Your task to perform on an android device: delete the emails in spam in the gmail app Image 0: 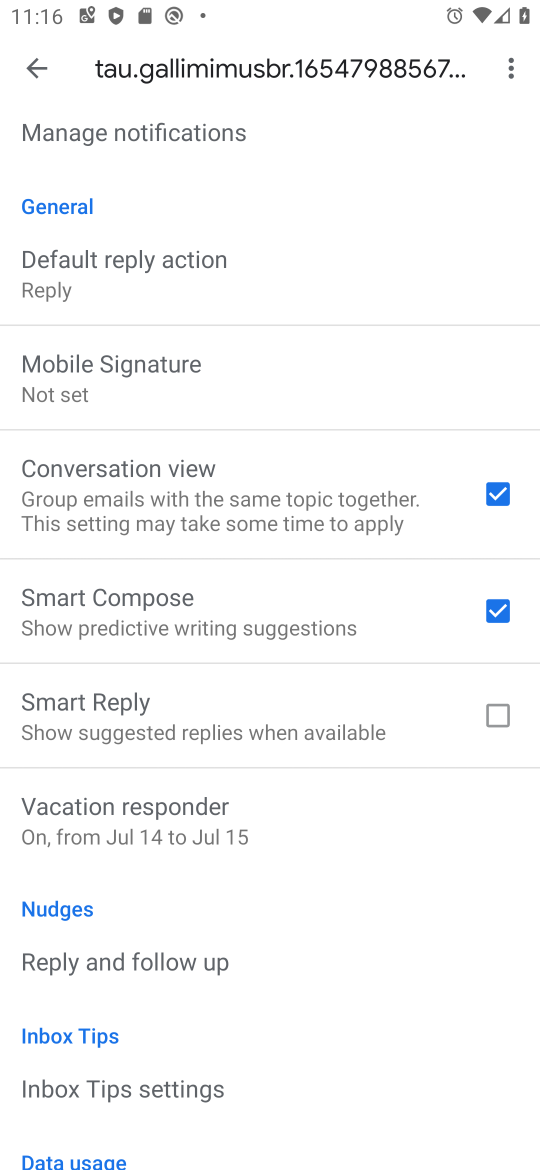
Step 0: press home button
Your task to perform on an android device: delete the emails in spam in the gmail app Image 1: 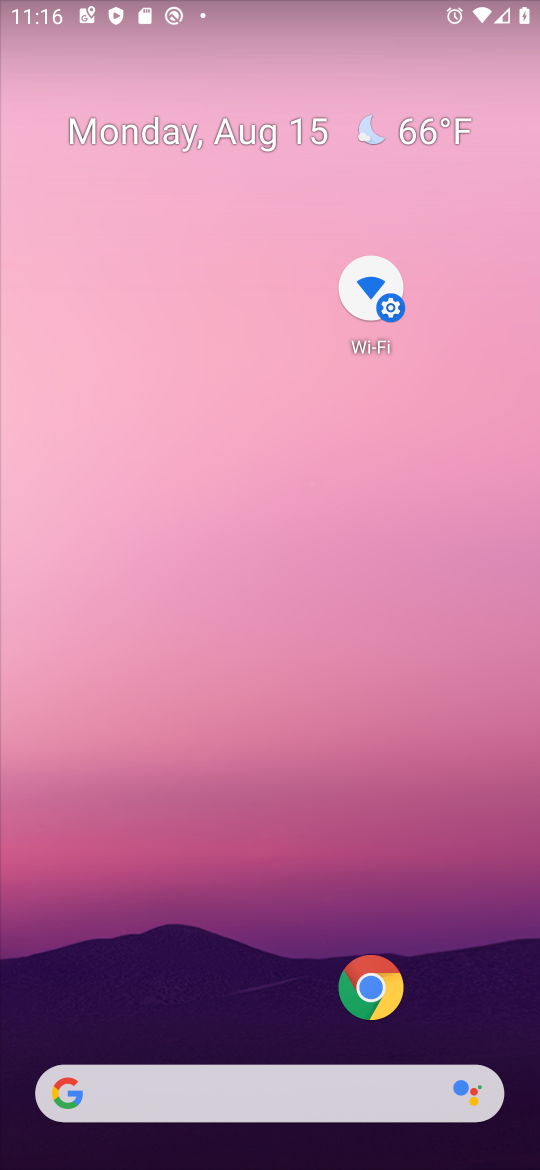
Step 1: drag from (235, 1052) to (244, 46)
Your task to perform on an android device: delete the emails in spam in the gmail app Image 2: 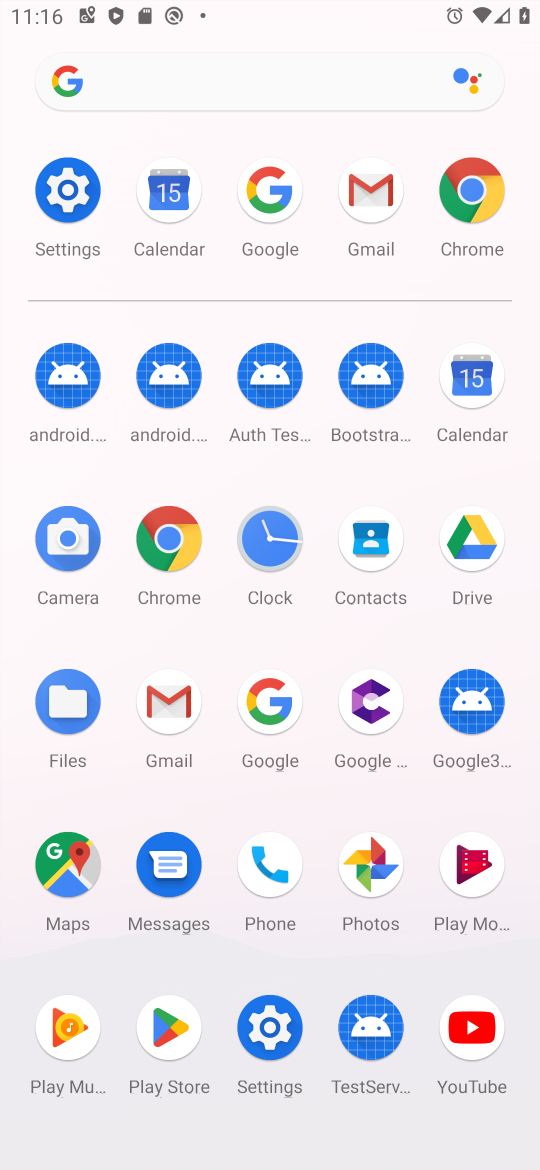
Step 2: click (175, 728)
Your task to perform on an android device: delete the emails in spam in the gmail app Image 3: 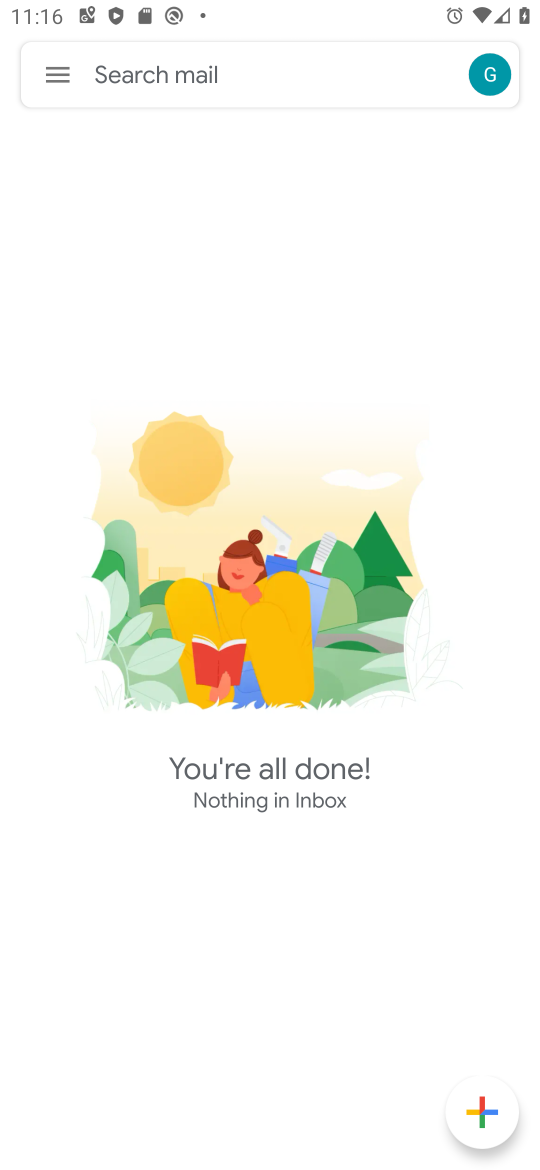
Step 3: click (42, 85)
Your task to perform on an android device: delete the emails in spam in the gmail app Image 4: 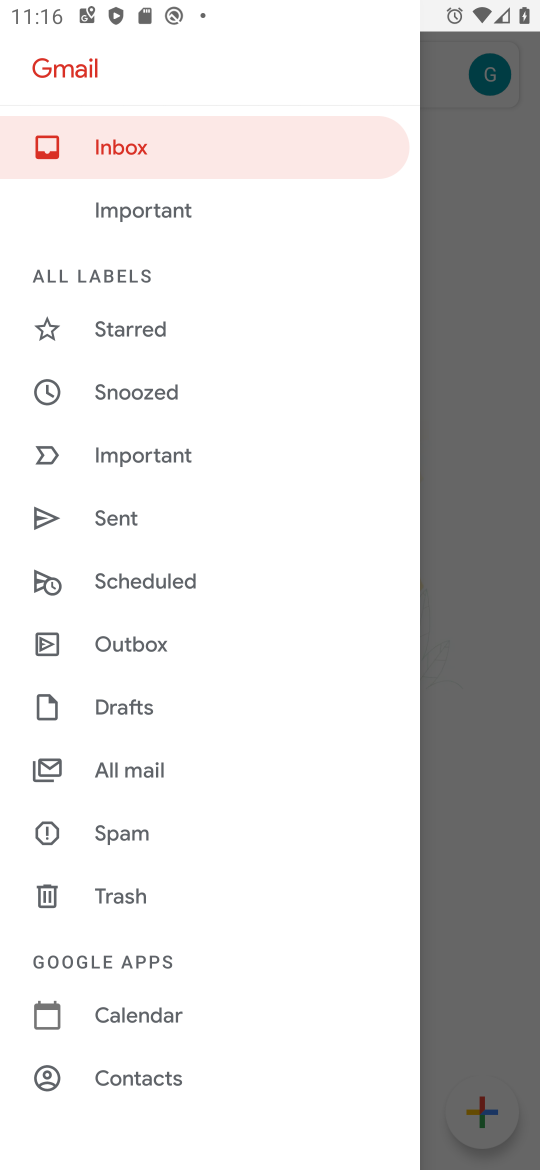
Step 4: click (126, 841)
Your task to perform on an android device: delete the emails in spam in the gmail app Image 5: 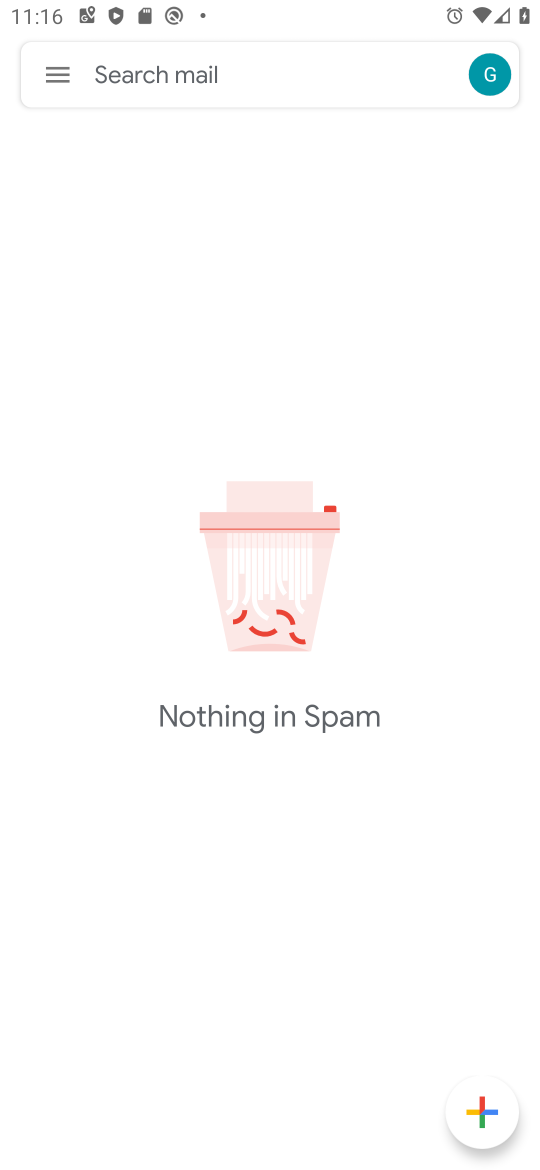
Step 5: task complete